Your task to perform on an android device: change the clock display to analog Image 0: 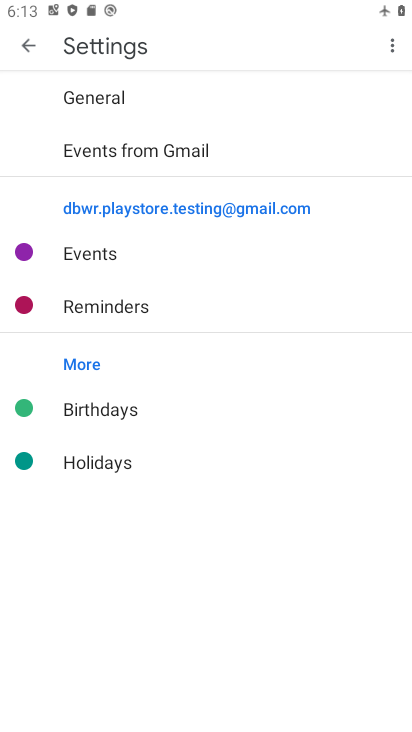
Step 0: press back button
Your task to perform on an android device: change the clock display to analog Image 1: 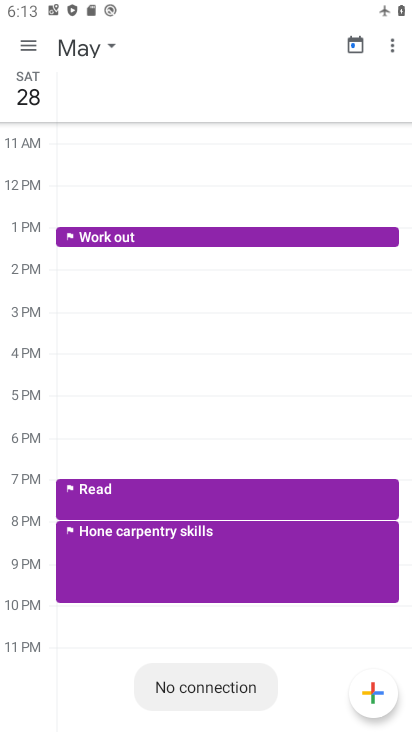
Step 1: press home button
Your task to perform on an android device: change the clock display to analog Image 2: 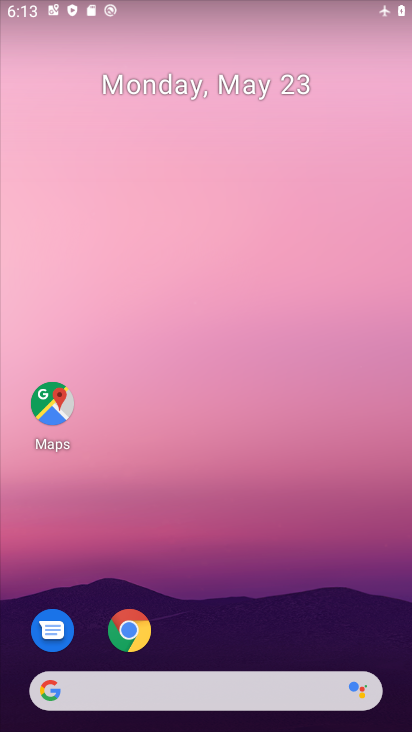
Step 2: drag from (187, 120) to (187, 32)
Your task to perform on an android device: change the clock display to analog Image 3: 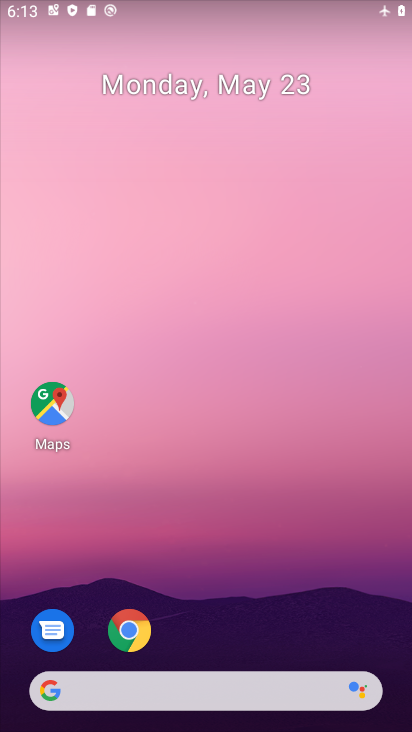
Step 3: drag from (238, 348) to (229, 8)
Your task to perform on an android device: change the clock display to analog Image 4: 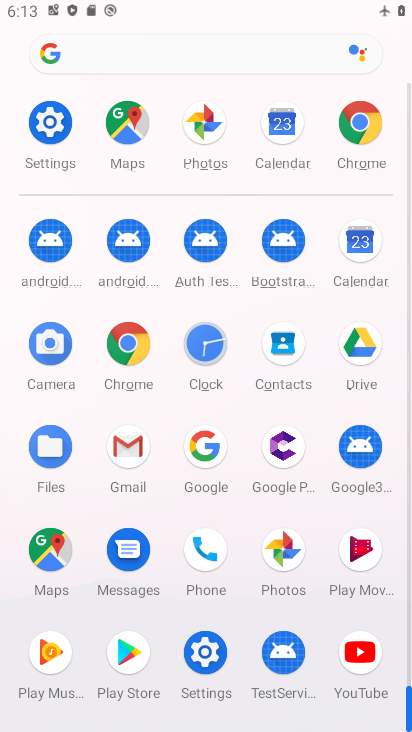
Step 4: drag from (12, 505) to (14, 208)
Your task to perform on an android device: change the clock display to analog Image 5: 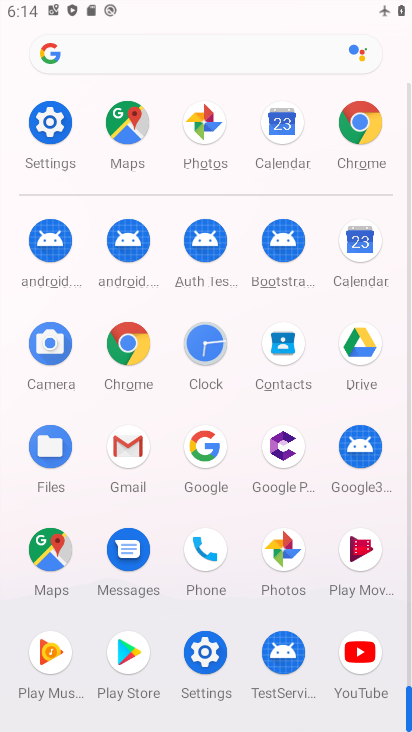
Step 5: drag from (17, 382) to (17, 274)
Your task to perform on an android device: change the clock display to analog Image 6: 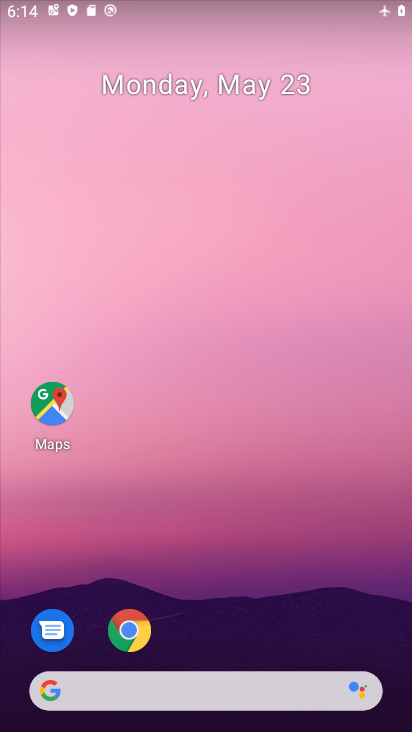
Step 6: drag from (280, 582) to (267, 34)
Your task to perform on an android device: change the clock display to analog Image 7: 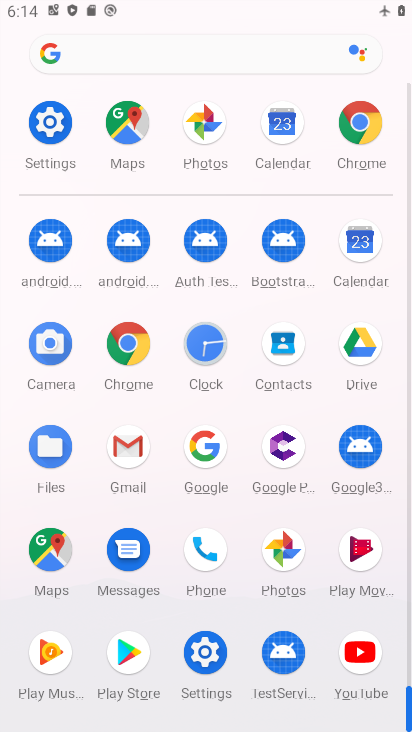
Step 7: click (204, 342)
Your task to perform on an android device: change the clock display to analog Image 8: 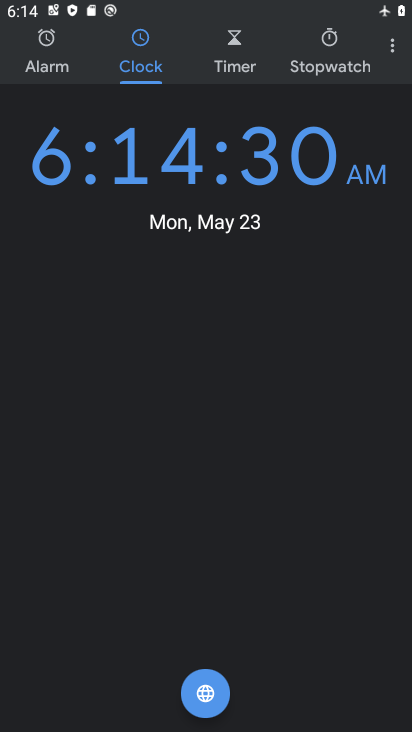
Step 8: drag from (391, 39) to (342, 90)
Your task to perform on an android device: change the clock display to analog Image 9: 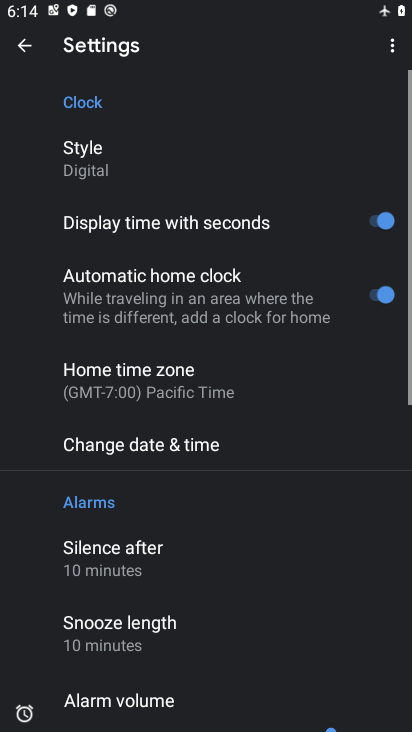
Step 9: click (151, 158)
Your task to perform on an android device: change the clock display to analog Image 10: 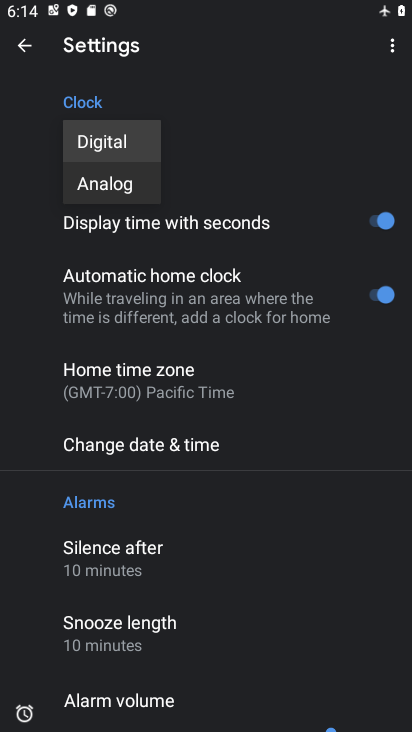
Step 10: click (135, 188)
Your task to perform on an android device: change the clock display to analog Image 11: 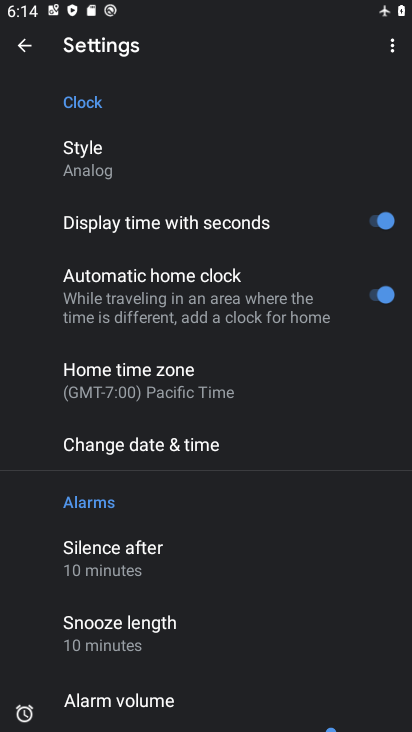
Step 11: task complete